Your task to perform on an android device: open app "Indeed Job Search" (install if not already installed) Image 0: 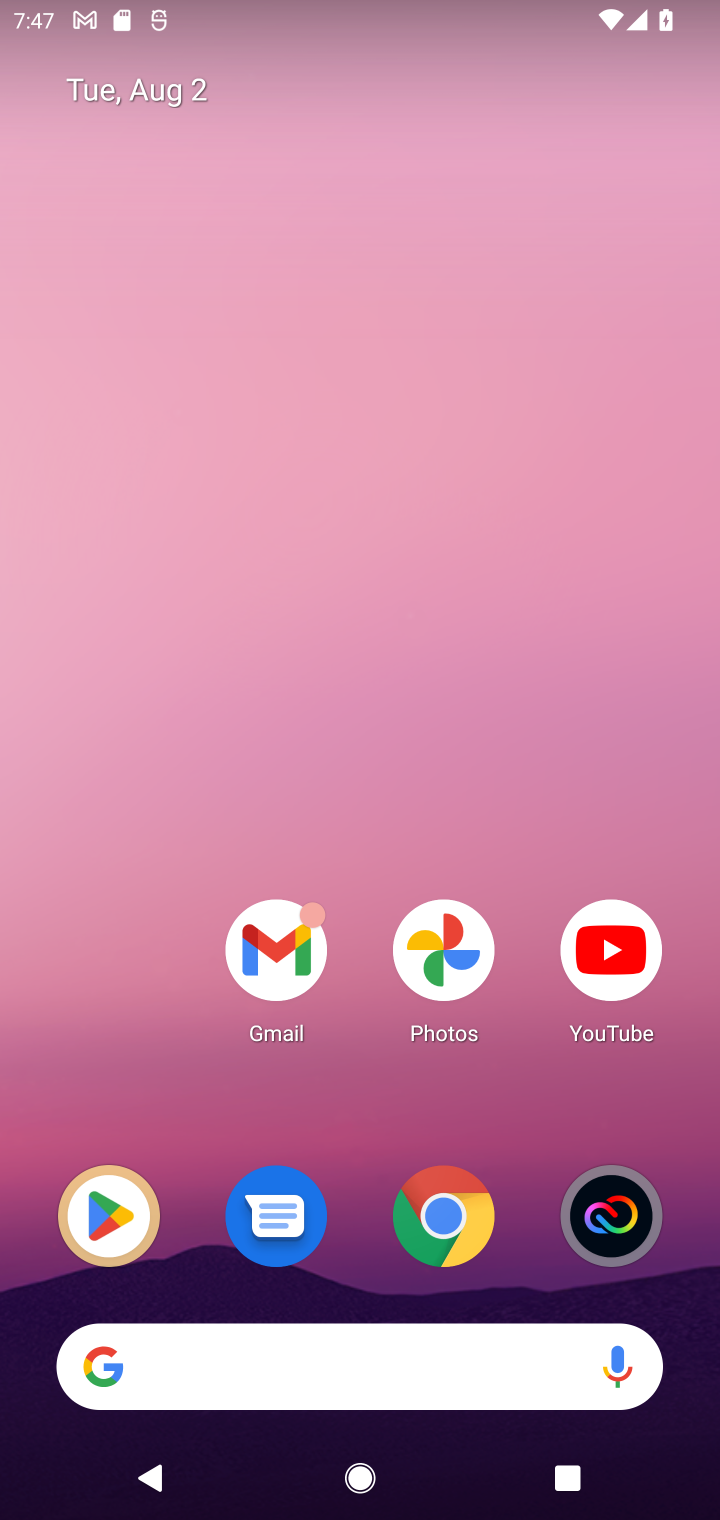
Step 0: click (132, 1216)
Your task to perform on an android device: open app "Indeed Job Search" (install if not already installed) Image 1: 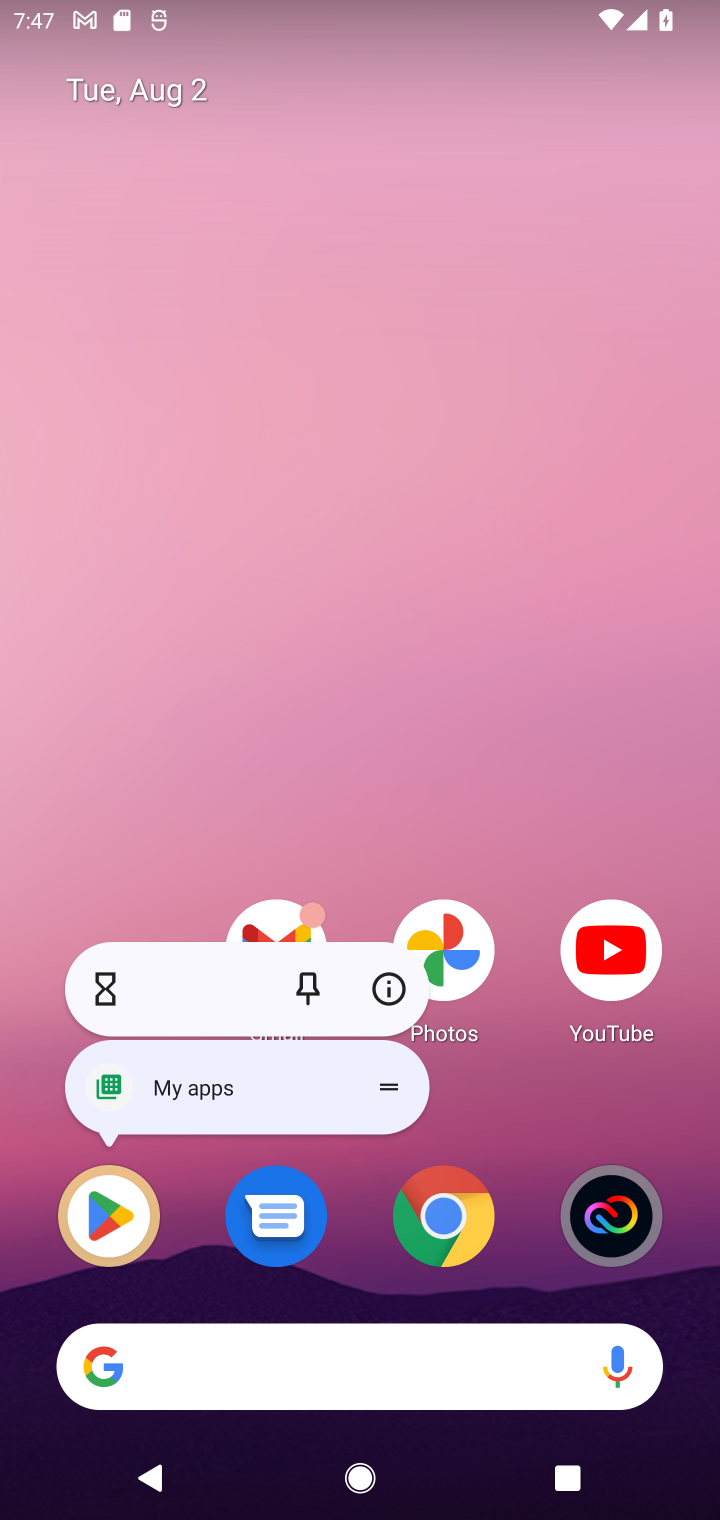
Step 1: click (109, 1220)
Your task to perform on an android device: open app "Indeed Job Search" (install if not already installed) Image 2: 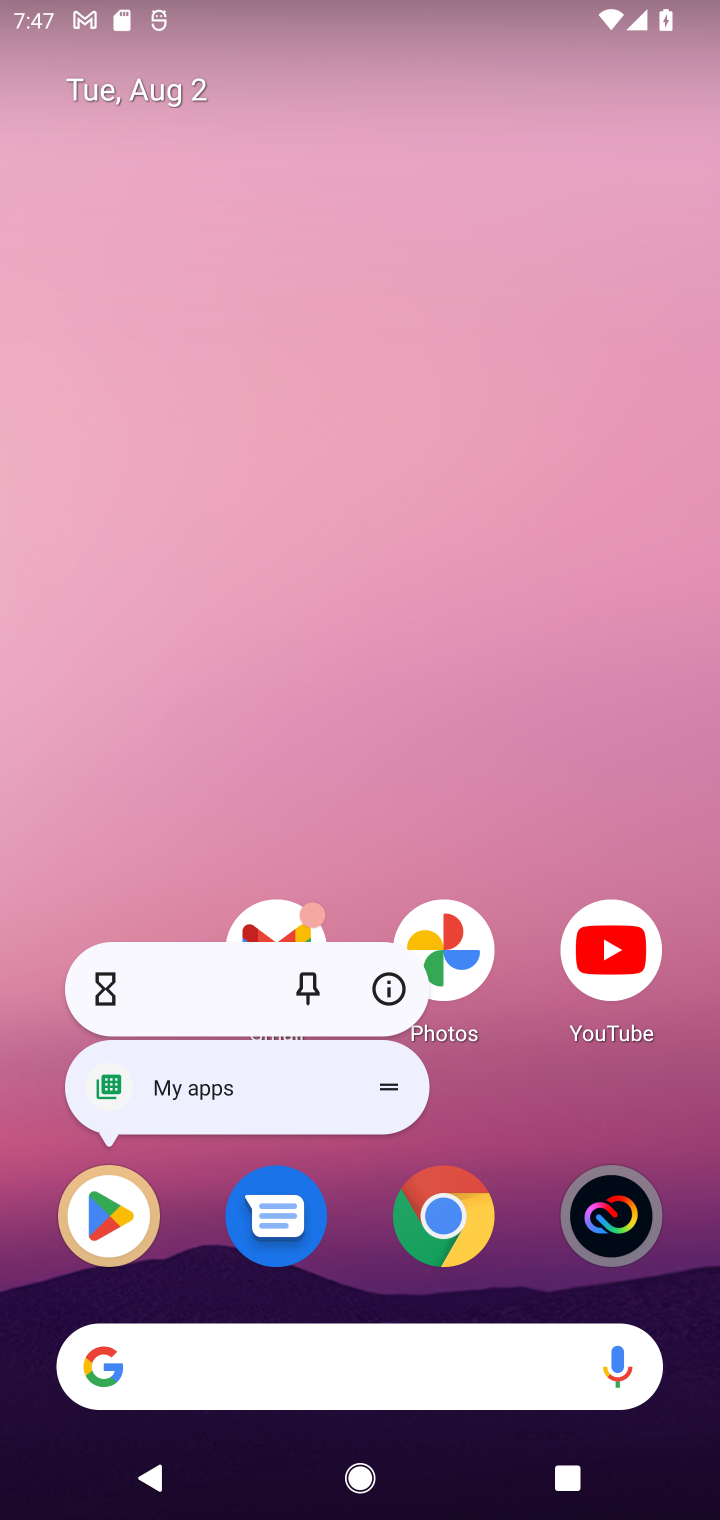
Step 2: click (109, 1223)
Your task to perform on an android device: open app "Indeed Job Search" (install if not already installed) Image 3: 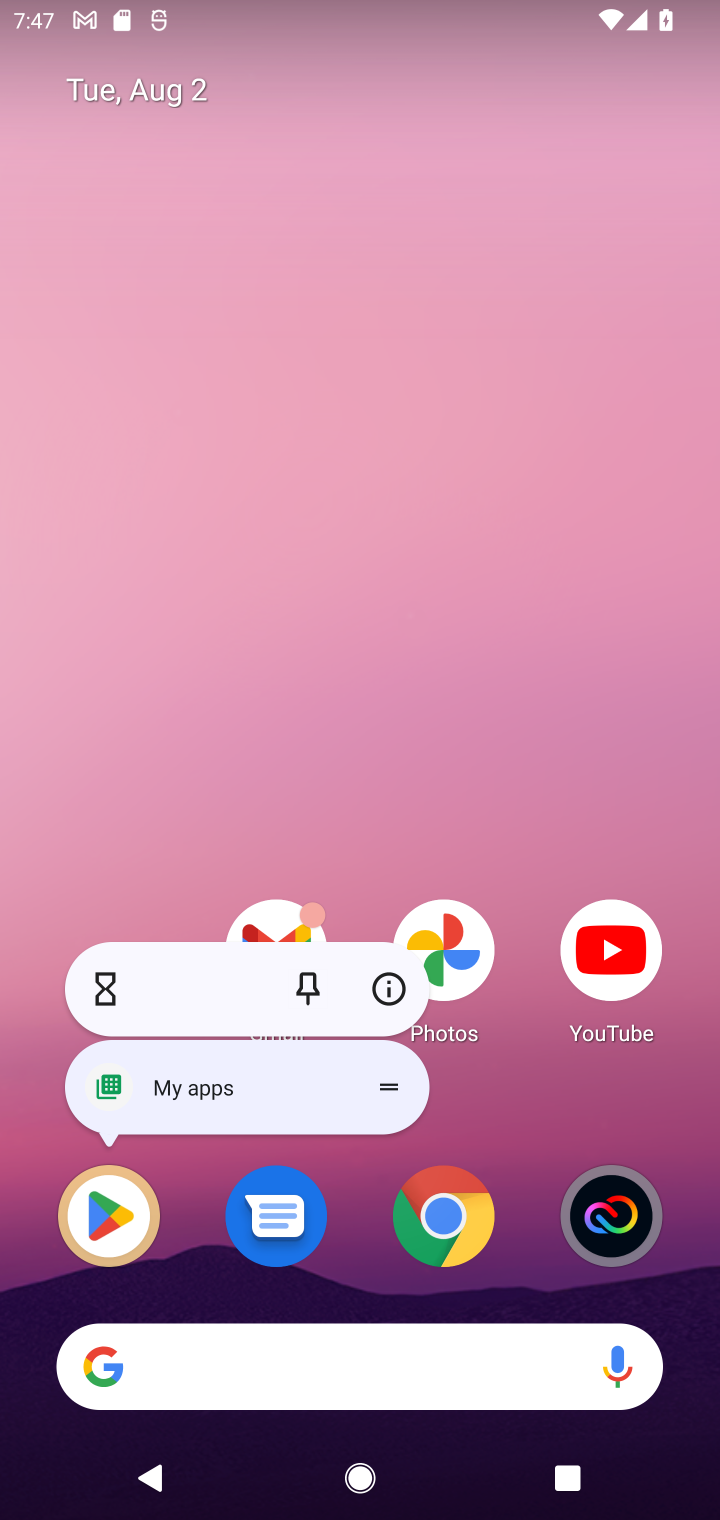
Step 3: click (109, 1231)
Your task to perform on an android device: open app "Indeed Job Search" (install if not already installed) Image 4: 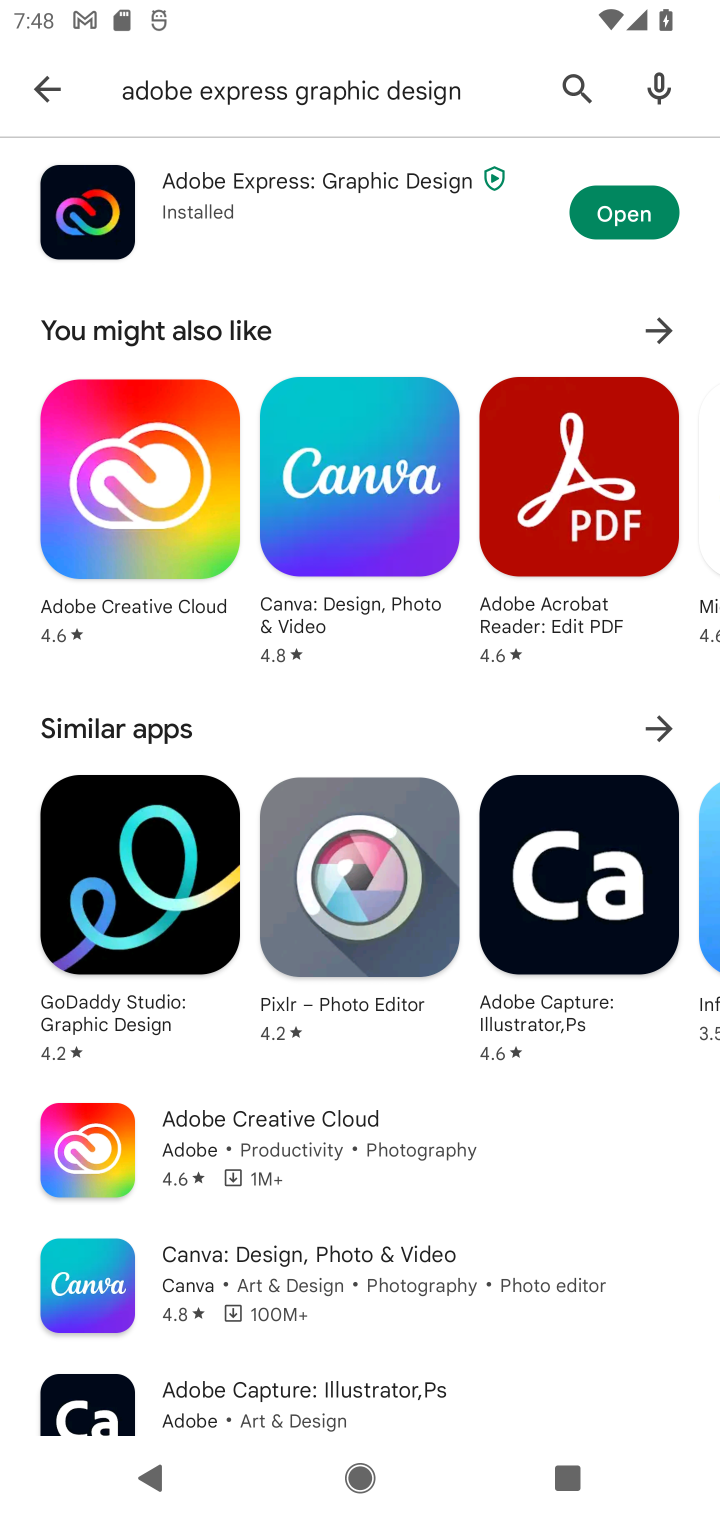
Step 4: click (571, 81)
Your task to perform on an android device: open app "Indeed Job Search" (install if not already installed) Image 5: 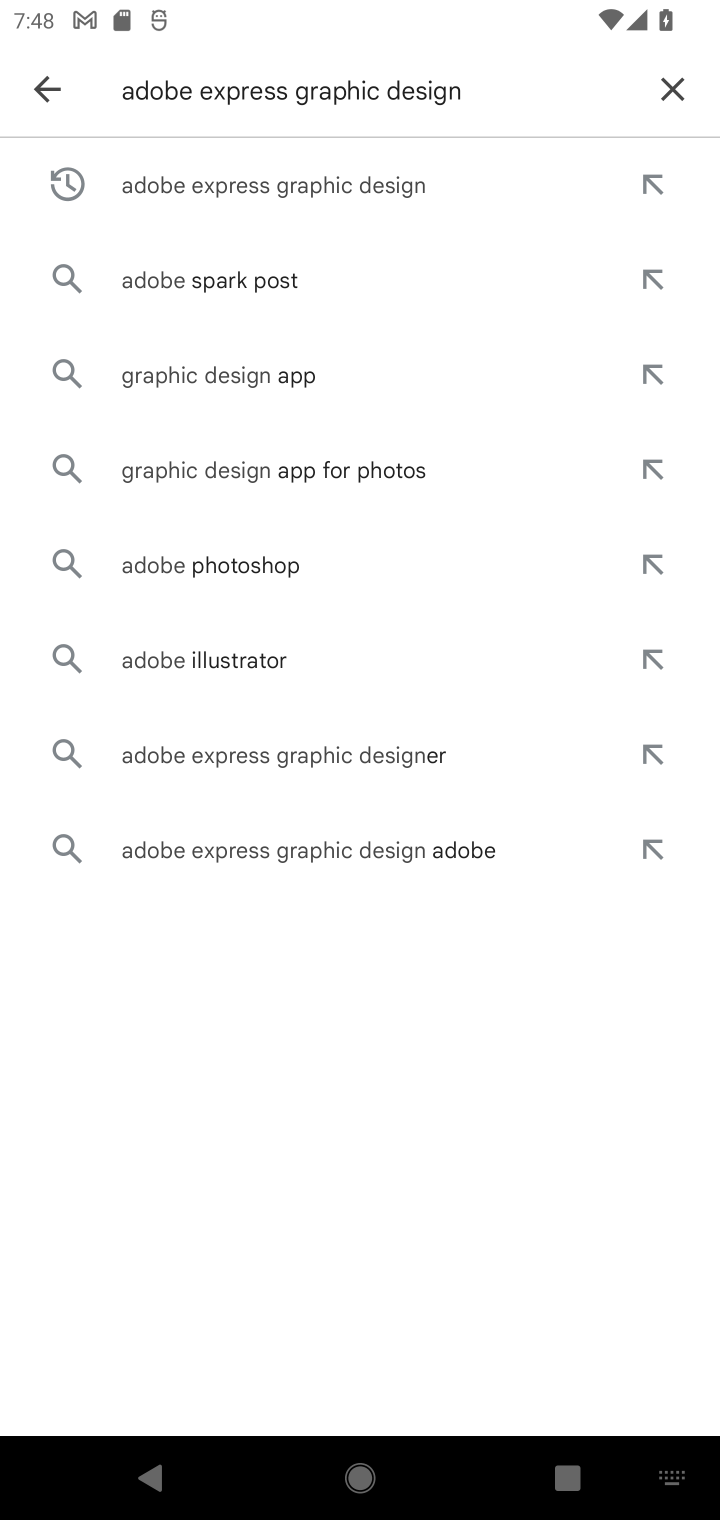
Step 5: click (664, 82)
Your task to perform on an android device: open app "Indeed Job Search" (install if not already installed) Image 6: 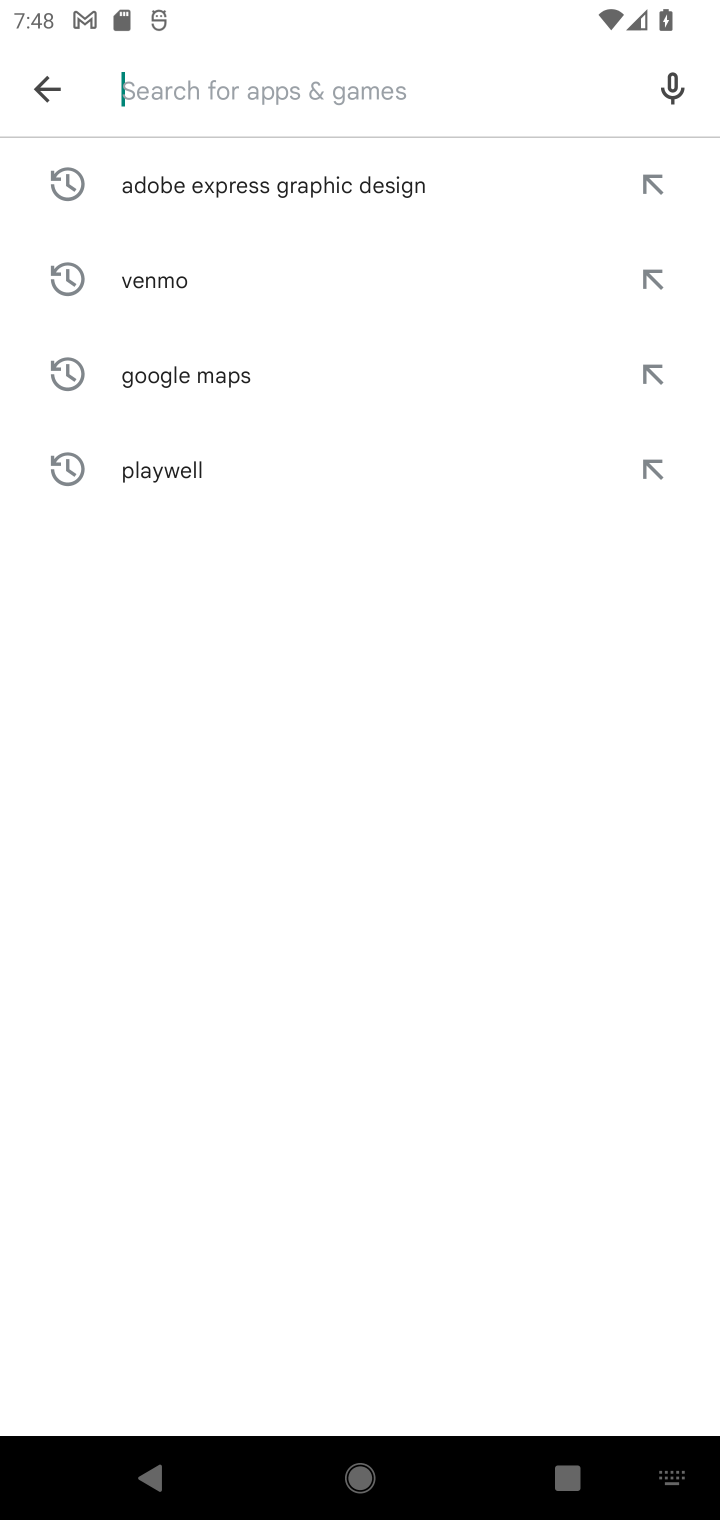
Step 6: type "Indeed Job Search"
Your task to perform on an android device: open app "Indeed Job Search" (install if not already installed) Image 7: 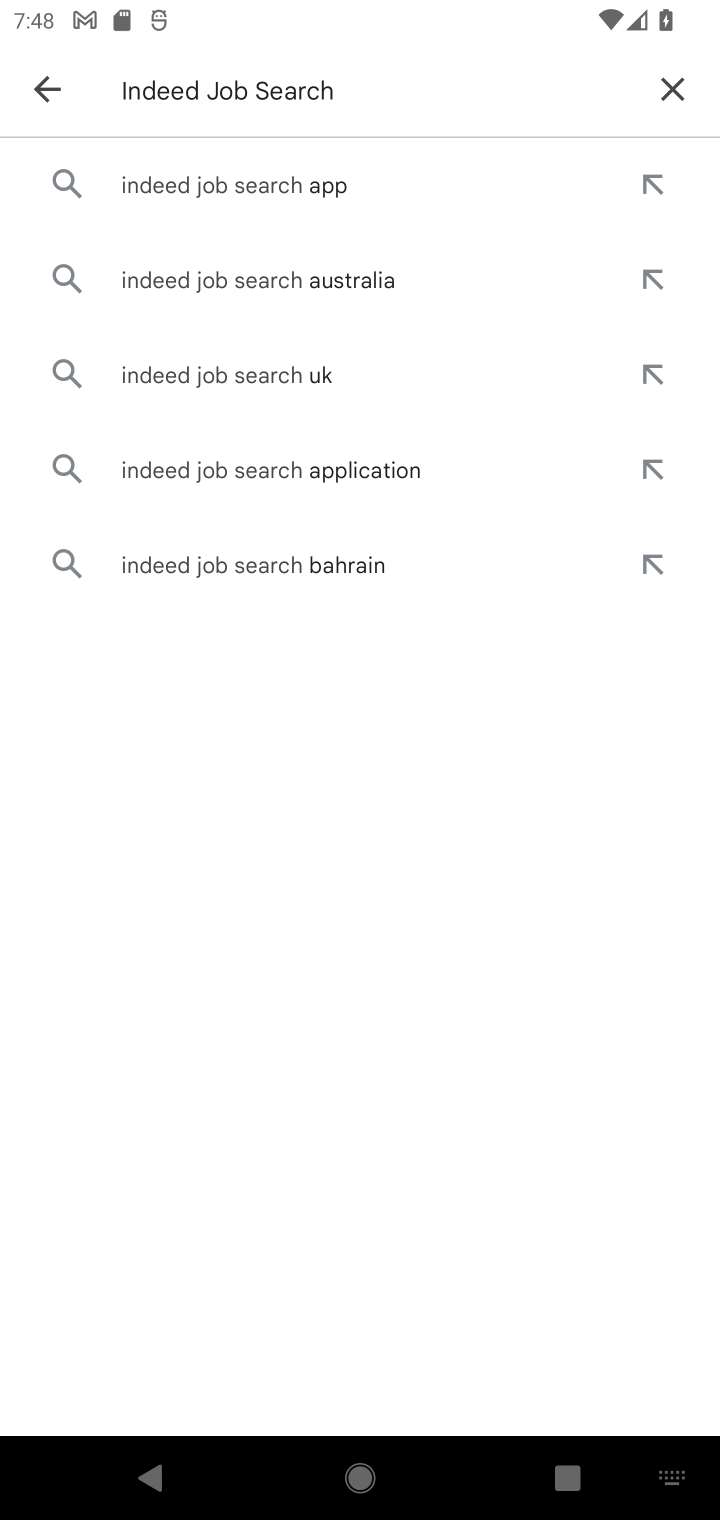
Step 7: click (314, 181)
Your task to perform on an android device: open app "Indeed Job Search" (install if not already installed) Image 8: 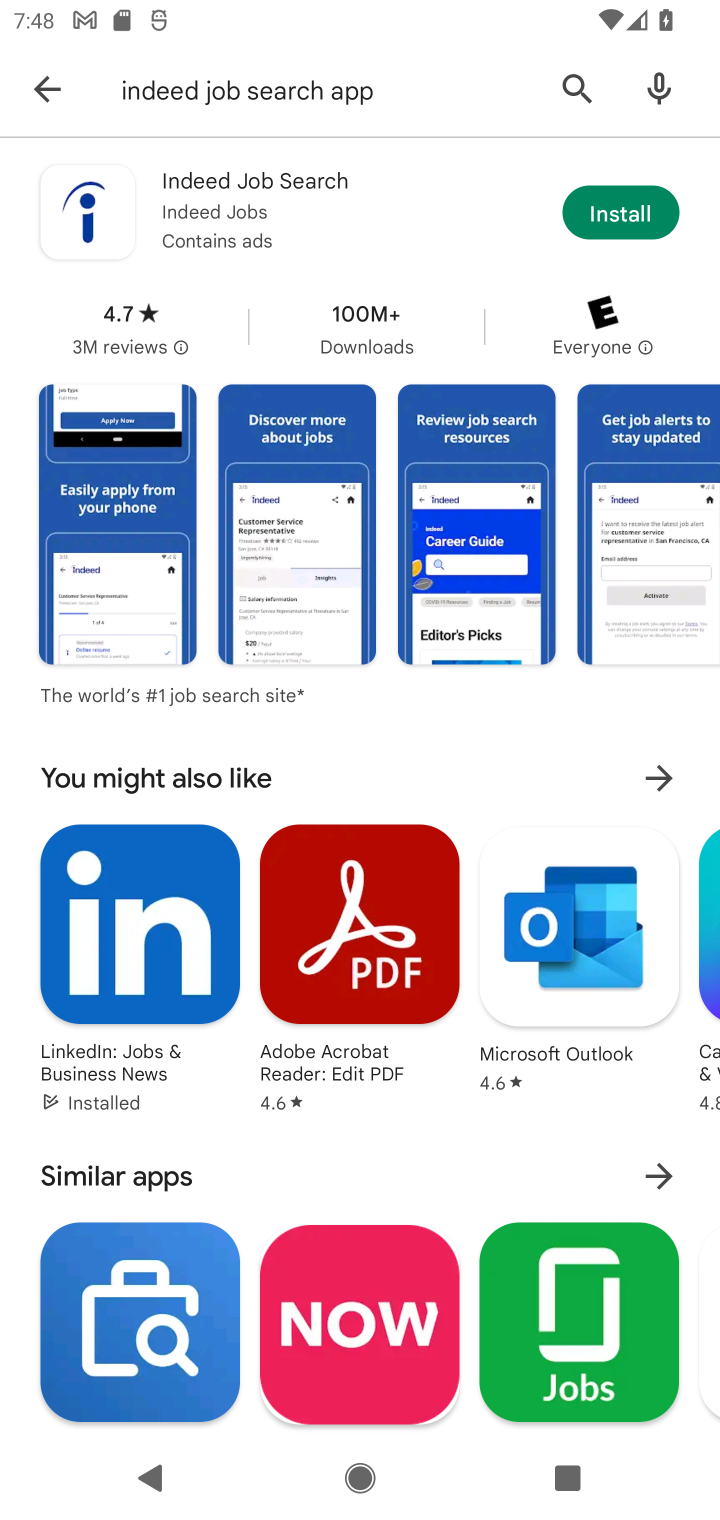
Step 8: click (637, 217)
Your task to perform on an android device: open app "Indeed Job Search" (install if not already installed) Image 9: 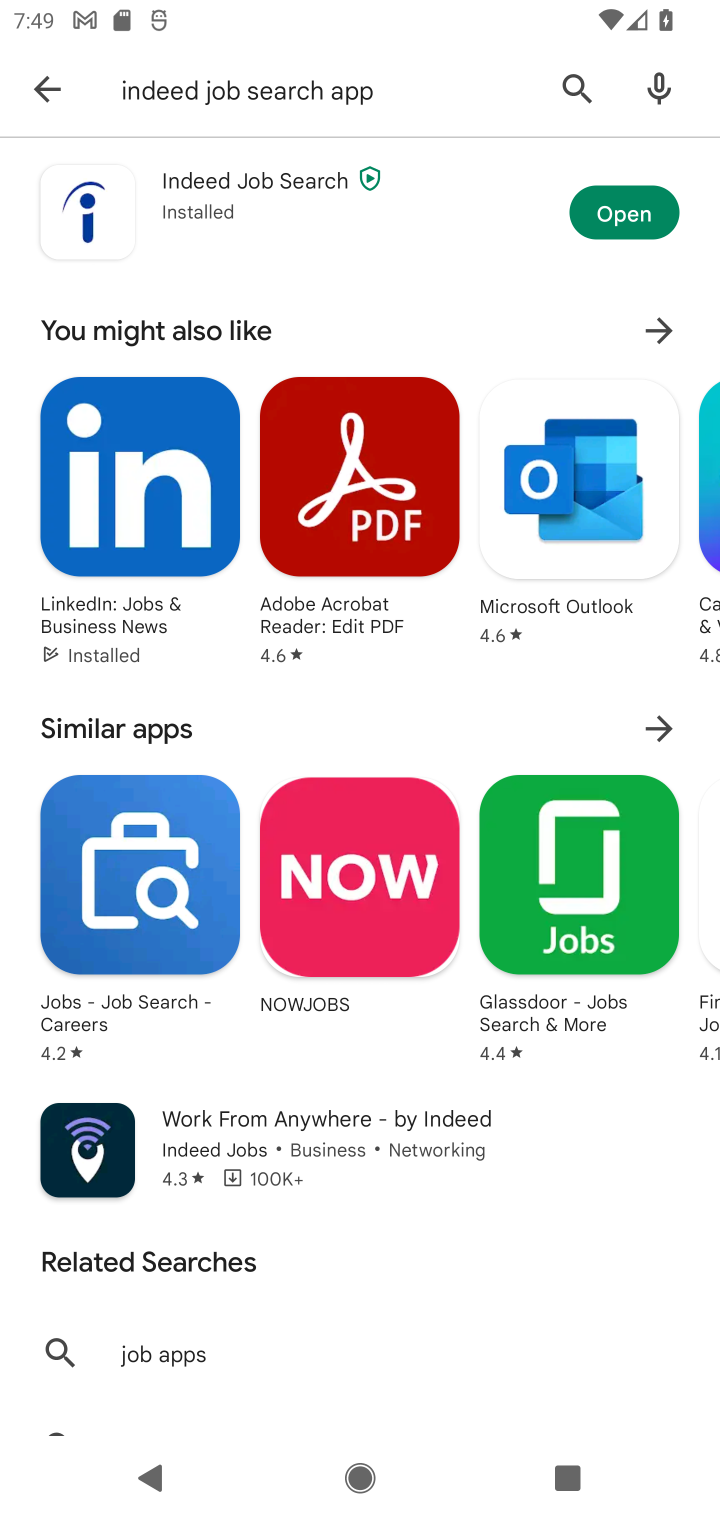
Step 9: click (646, 209)
Your task to perform on an android device: open app "Indeed Job Search" (install if not already installed) Image 10: 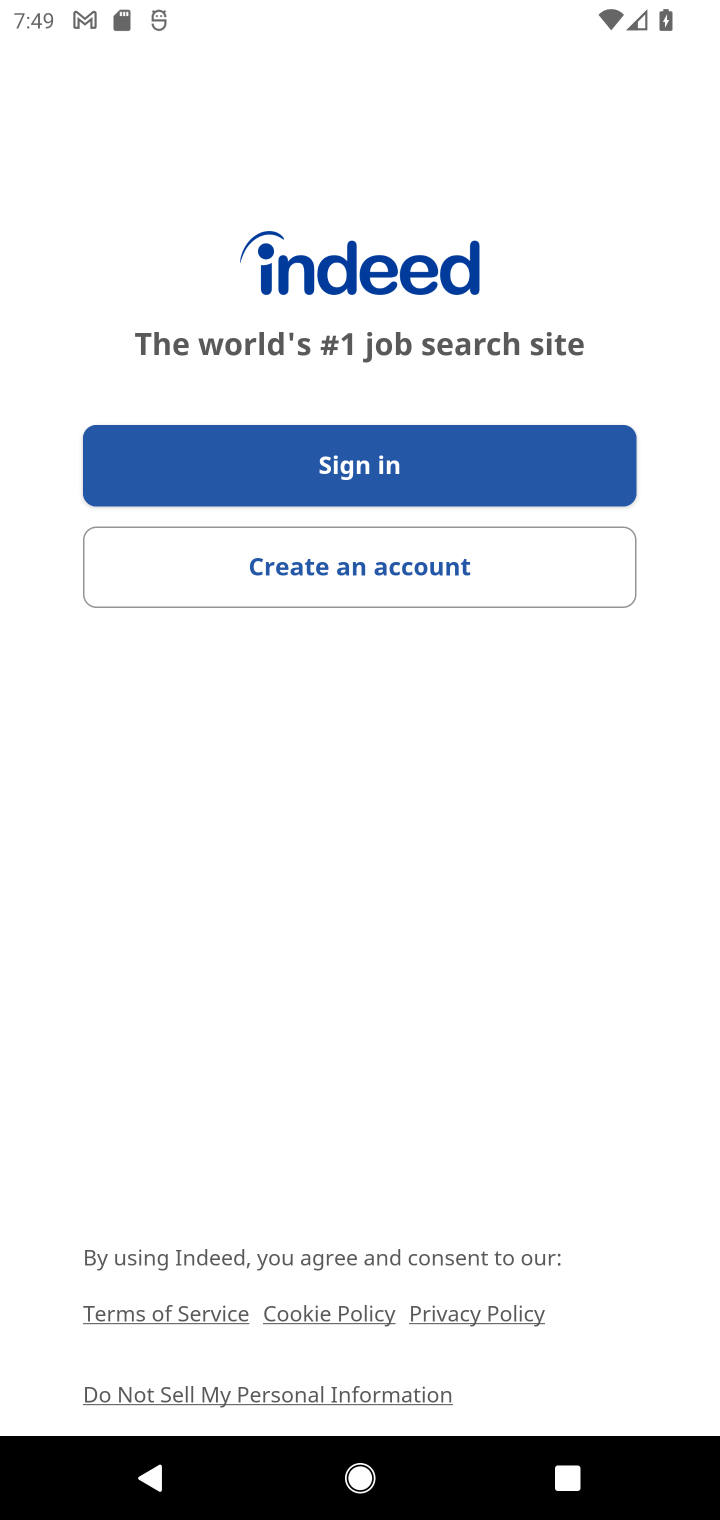
Step 10: task complete